Your task to perform on an android device: delete location history Image 0: 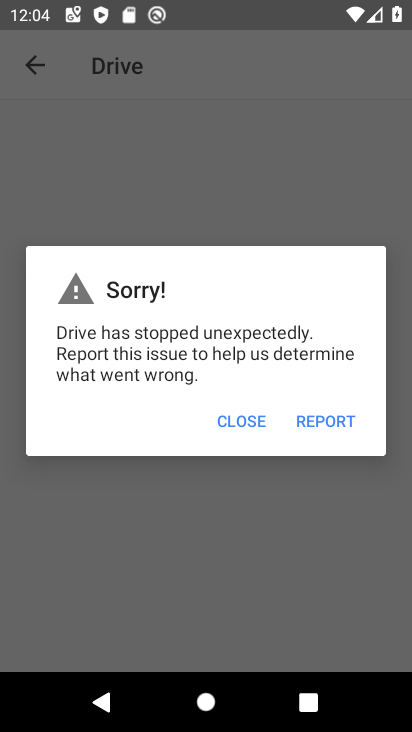
Step 0: press home button
Your task to perform on an android device: delete location history Image 1: 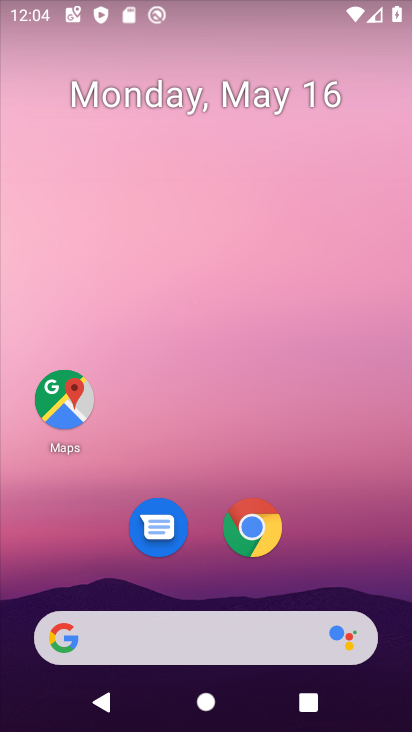
Step 1: drag from (214, 578) to (354, 18)
Your task to perform on an android device: delete location history Image 2: 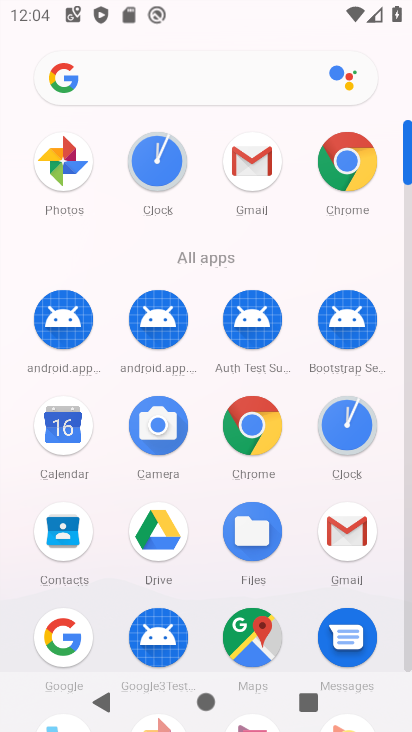
Step 2: drag from (209, 497) to (212, 414)
Your task to perform on an android device: delete location history Image 3: 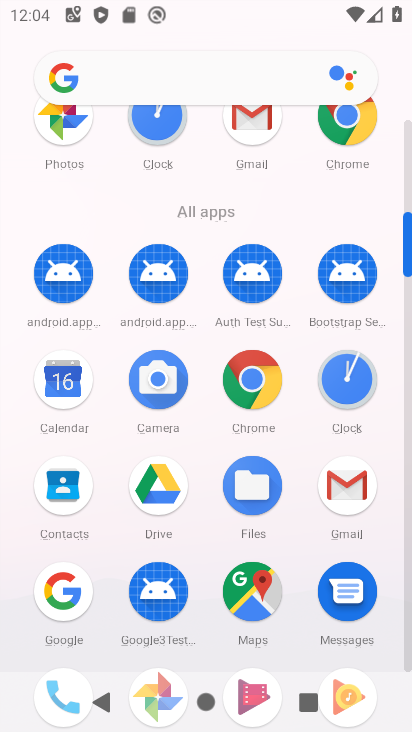
Step 3: click (253, 603)
Your task to perform on an android device: delete location history Image 4: 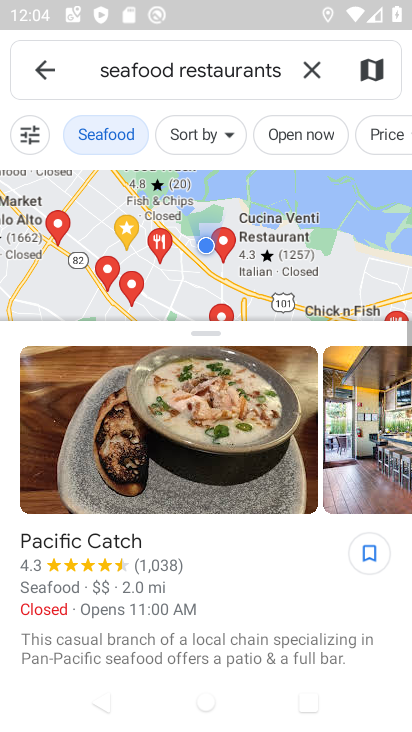
Step 4: click (52, 74)
Your task to perform on an android device: delete location history Image 5: 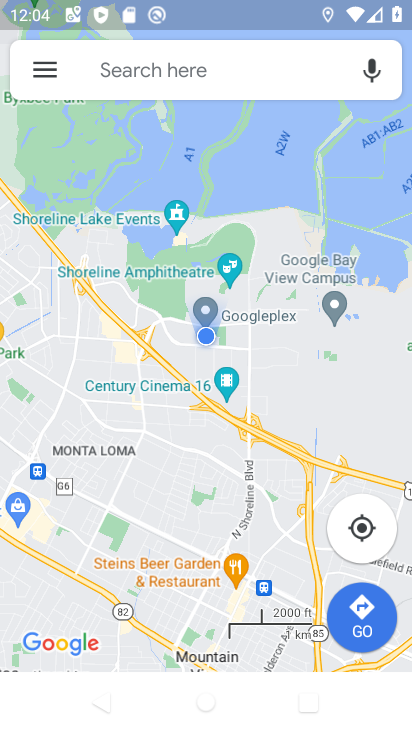
Step 5: click (42, 64)
Your task to perform on an android device: delete location history Image 6: 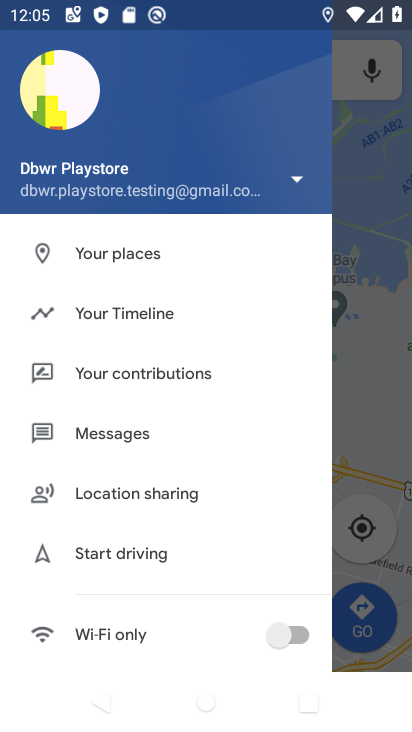
Step 6: drag from (129, 577) to (150, 453)
Your task to perform on an android device: delete location history Image 7: 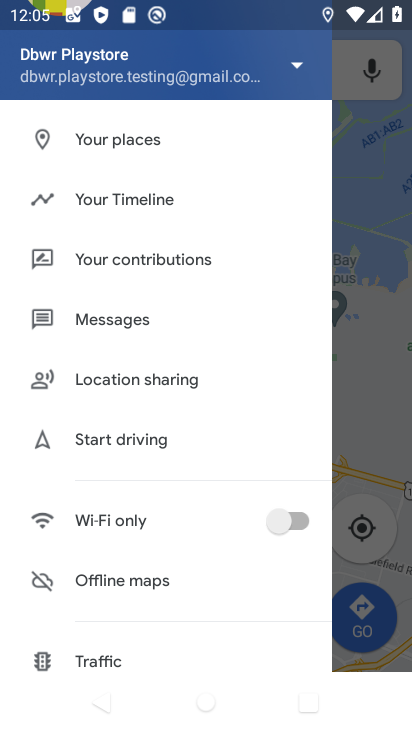
Step 7: click (137, 192)
Your task to perform on an android device: delete location history Image 8: 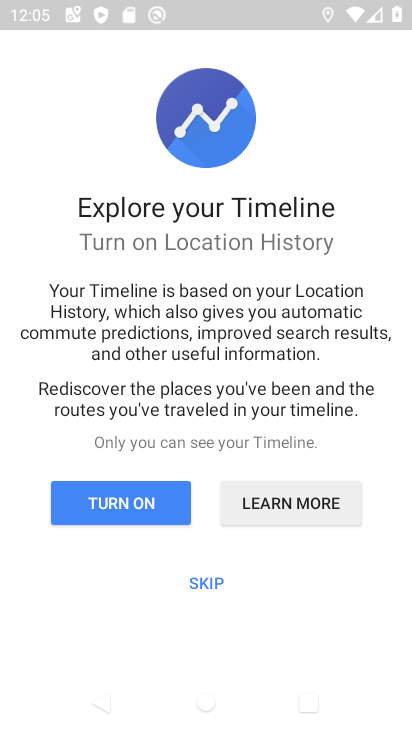
Step 8: click (218, 577)
Your task to perform on an android device: delete location history Image 9: 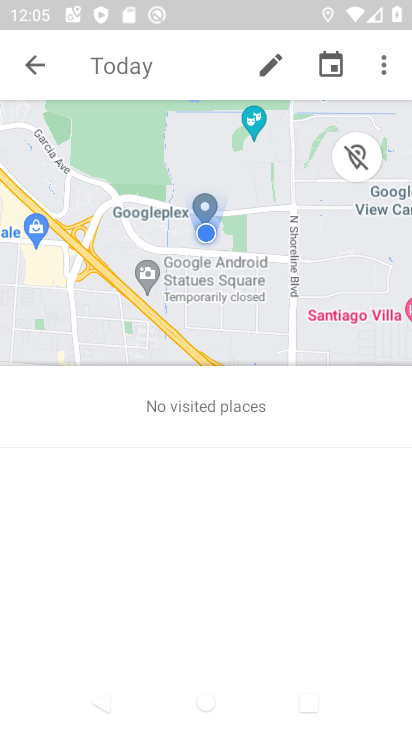
Step 9: click (390, 73)
Your task to perform on an android device: delete location history Image 10: 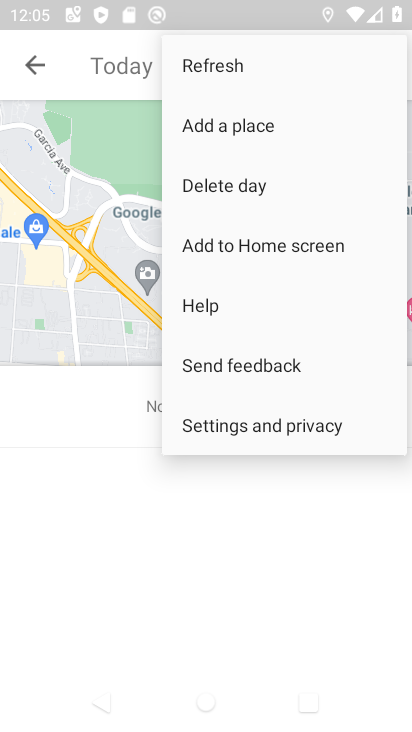
Step 10: click (256, 431)
Your task to perform on an android device: delete location history Image 11: 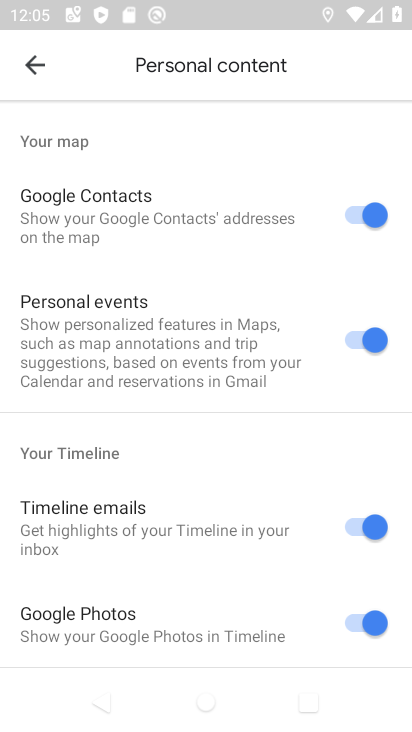
Step 11: drag from (140, 471) to (94, 29)
Your task to perform on an android device: delete location history Image 12: 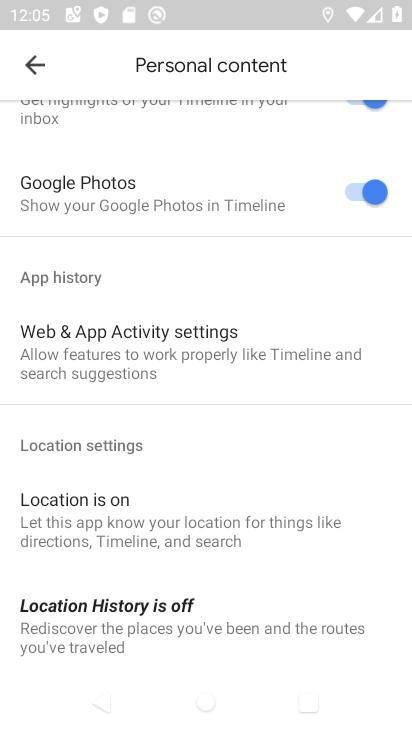
Step 12: drag from (157, 605) to (219, 253)
Your task to perform on an android device: delete location history Image 13: 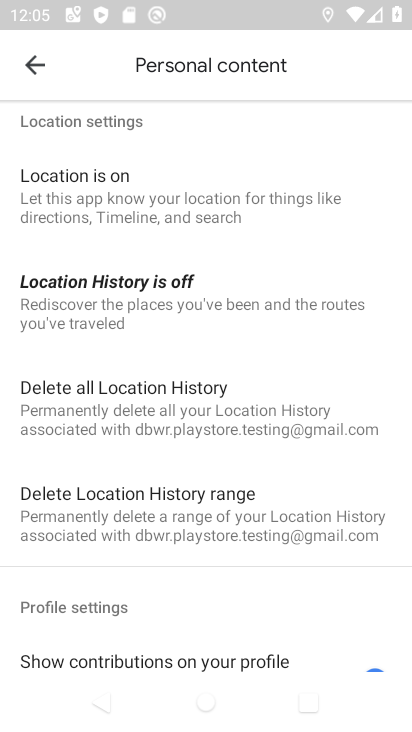
Step 13: drag from (155, 588) to (193, 424)
Your task to perform on an android device: delete location history Image 14: 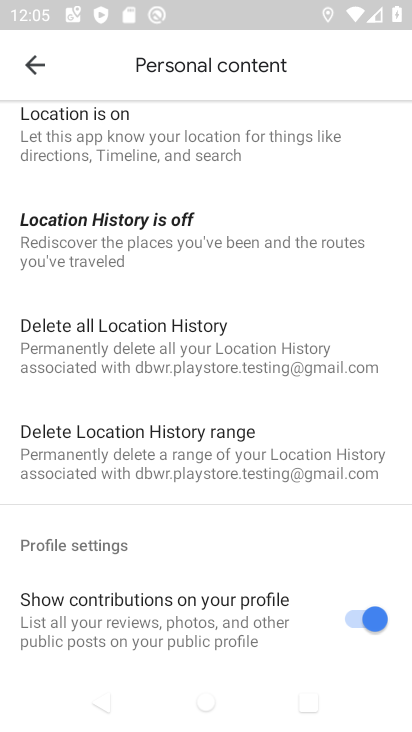
Step 14: click (163, 338)
Your task to perform on an android device: delete location history Image 15: 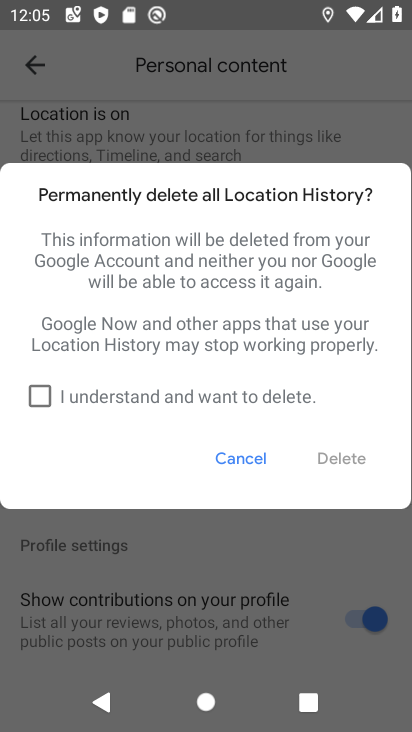
Step 15: click (119, 398)
Your task to perform on an android device: delete location history Image 16: 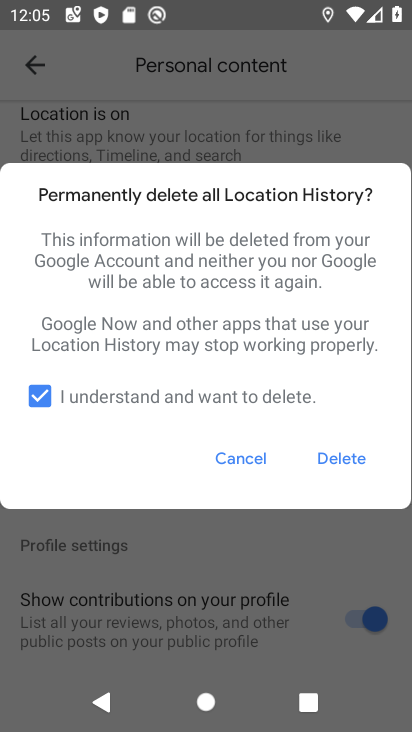
Step 16: click (341, 453)
Your task to perform on an android device: delete location history Image 17: 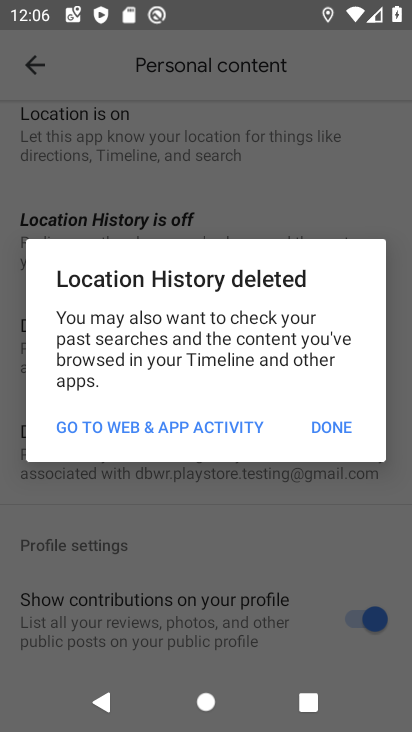
Step 17: click (331, 423)
Your task to perform on an android device: delete location history Image 18: 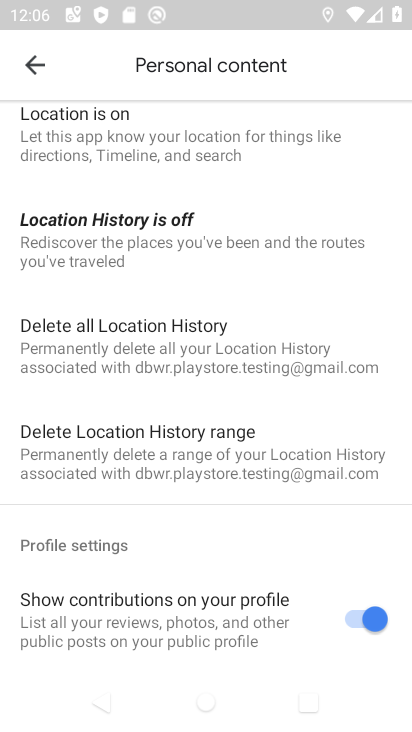
Step 18: task complete